Your task to perform on an android device: Go to Google Image 0: 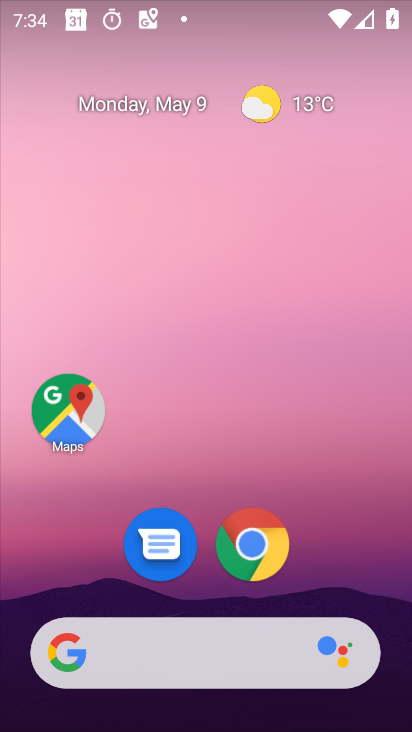
Step 0: drag from (363, 566) to (247, 0)
Your task to perform on an android device: Go to Google Image 1: 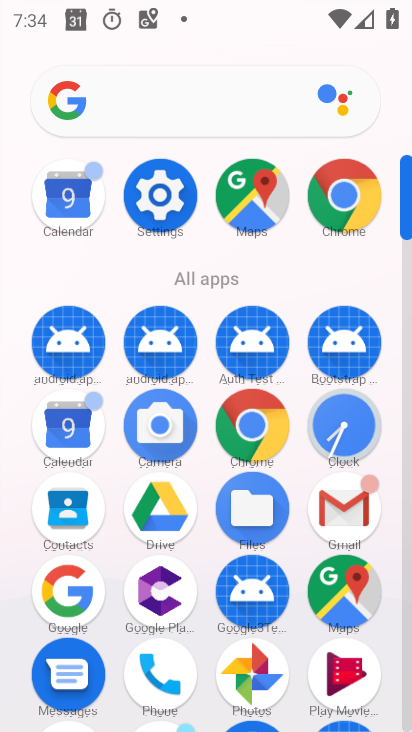
Step 1: click (66, 601)
Your task to perform on an android device: Go to Google Image 2: 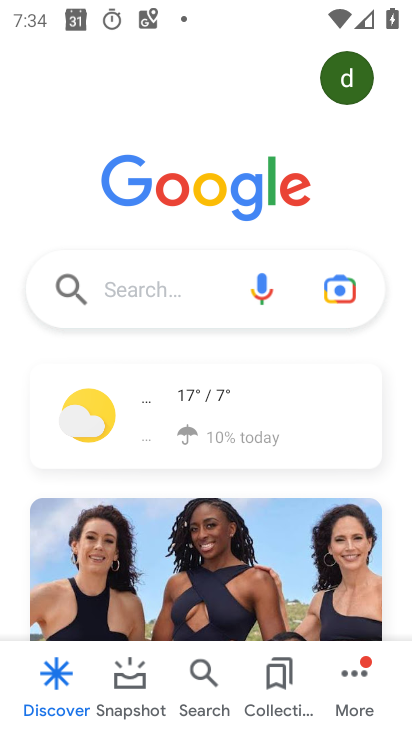
Step 2: task complete